Your task to perform on an android device: visit the assistant section in the google photos Image 0: 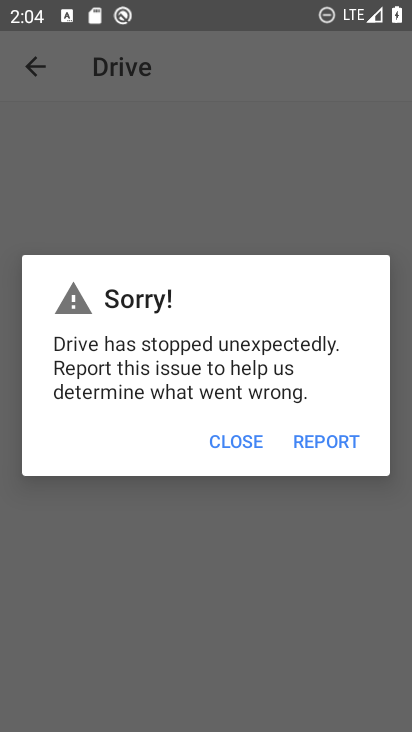
Step 0: press home button
Your task to perform on an android device: visit the assistant section in the google photos Image 1: 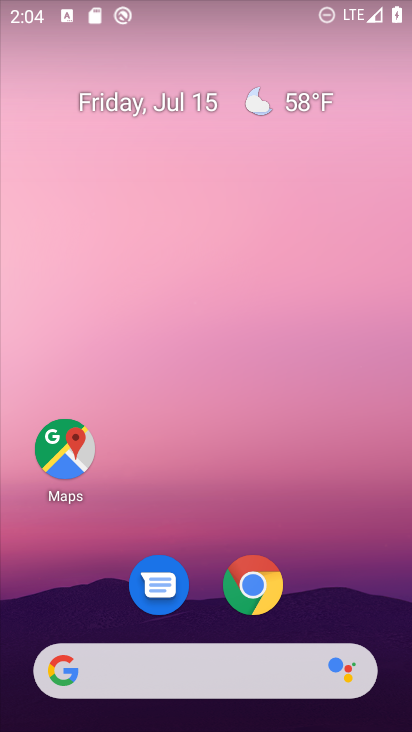
Step 1: drag from (231, 442) to (237, 42)
Your task to perform on an android device: visit the assistant section in the google photos Image 2: 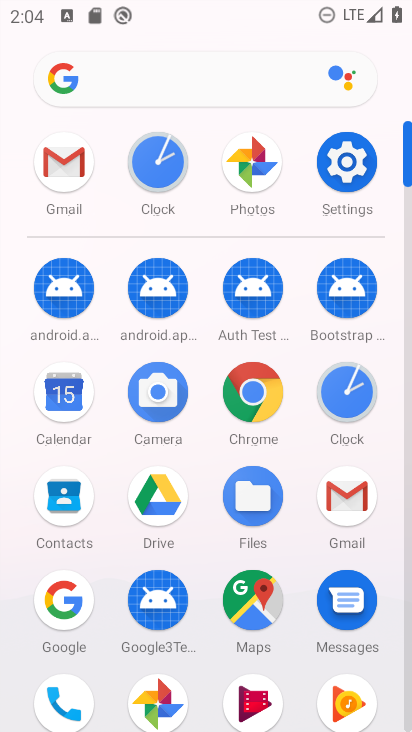
Step 2: click (262, 168)
Your task to perform on an android device: visit the assistant section in the google photos Image 3: 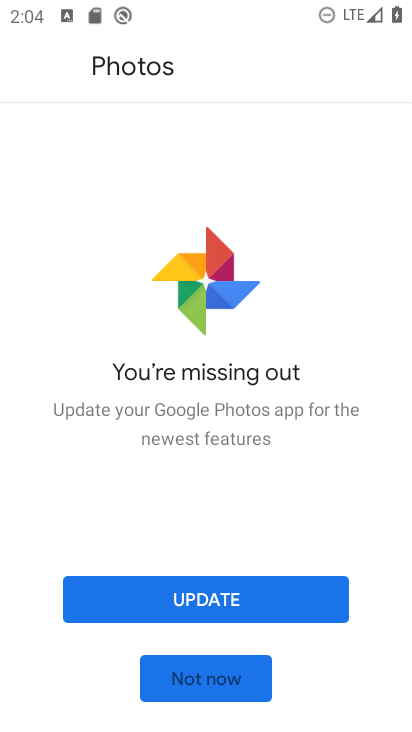
Step 3: click (243, 685)
Your task to perform on an android device: visit the assistant section in the google photos Image 4: 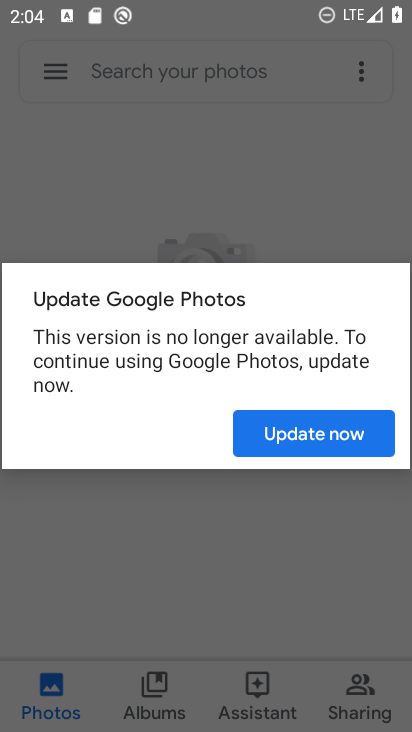
Step 4: click (350, 415)
Your task to perform on an android device: visit the assistant section in the google photos Image 5: 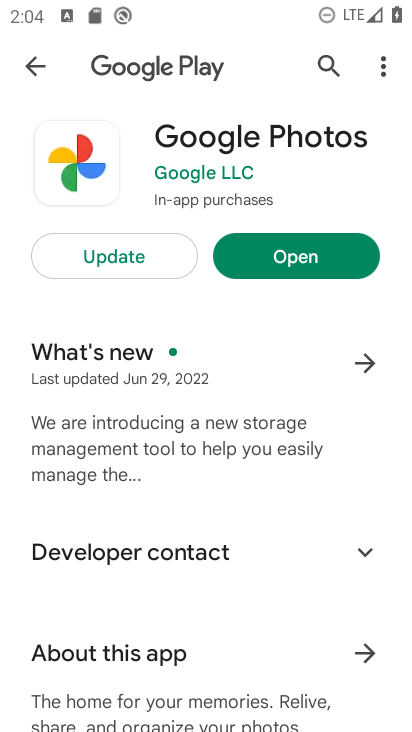
Step 5: click (338, 259)
Your task to perform on an android device: visit the assistant section in the google photos Image 6: 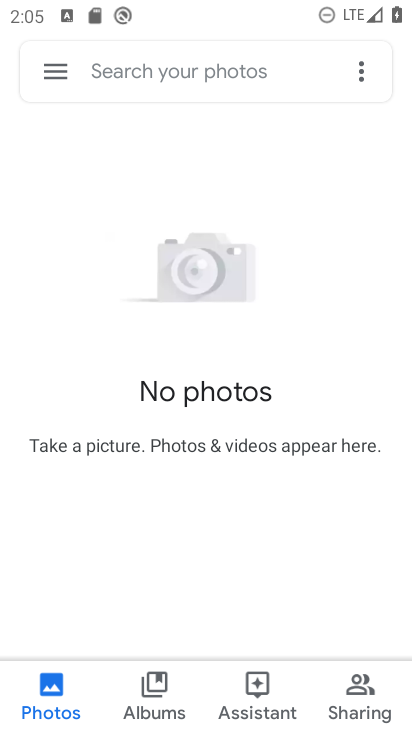
Step 6: click (256, 679)
Your task to perform on an android device: visit the assistant section in the google photos Image 7: 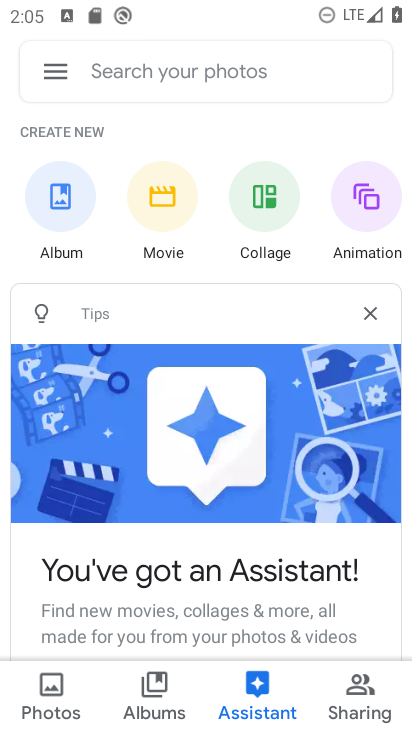
Step 7: task complete